Your task to perform on an android device: install app "WhatsApp Messenger" Image 0: 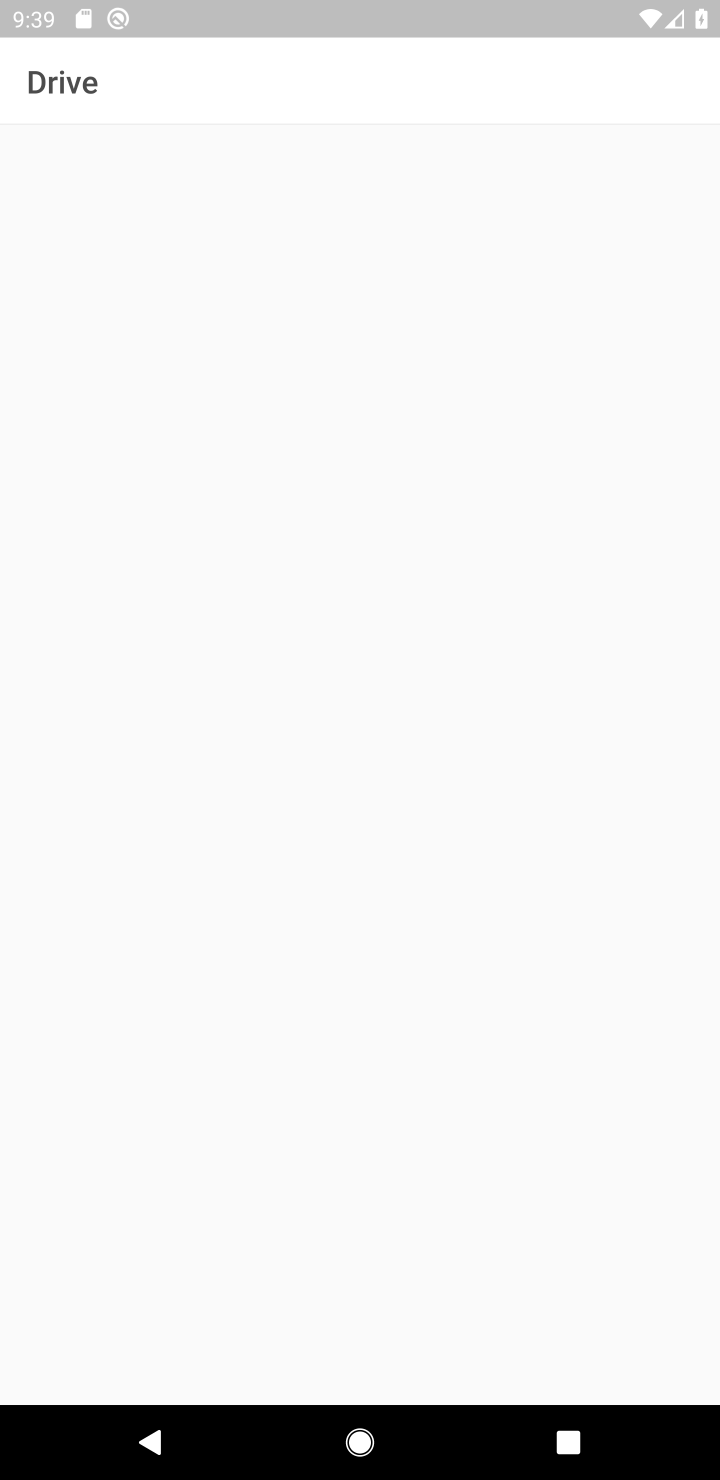
Step 0: press home button
Your task to perform on an android device: install app "WhatsApp Messenger" Image 1: 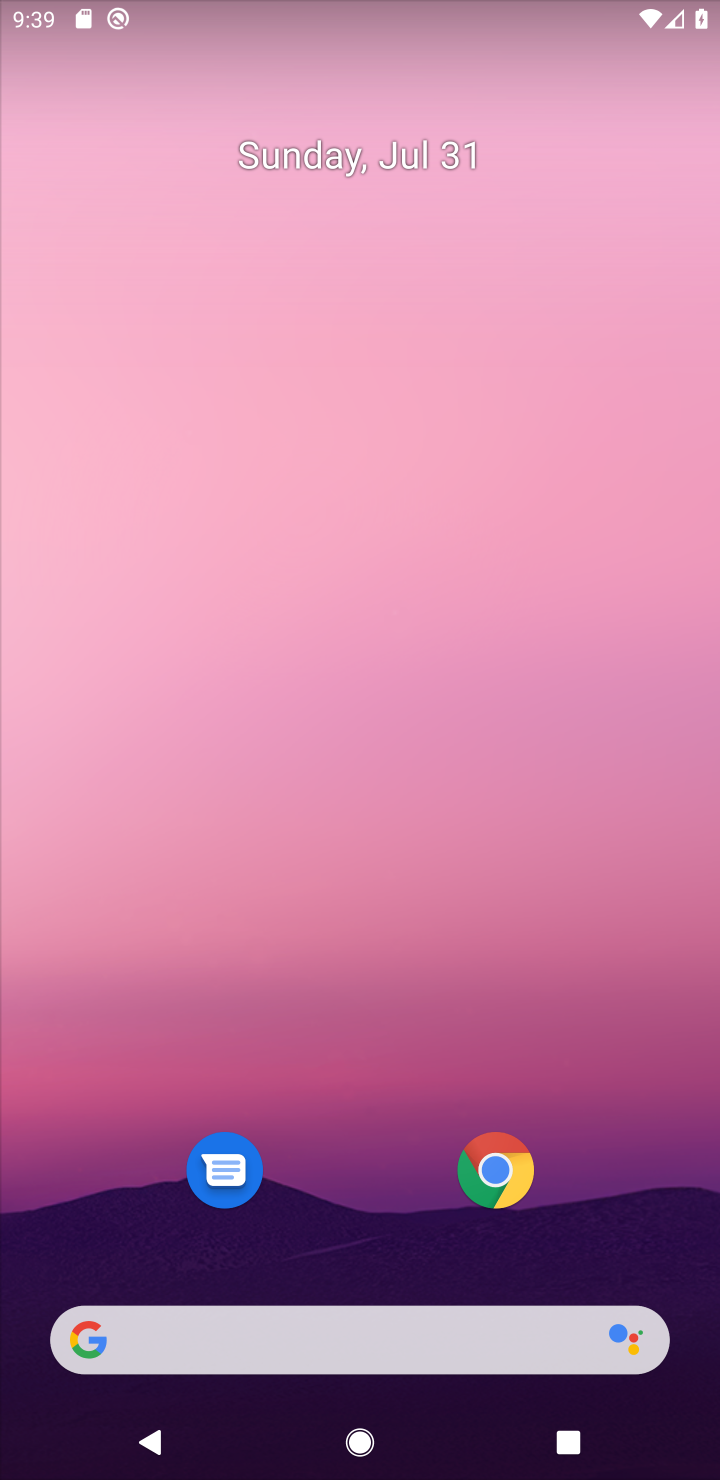
Step 1: drag from (670, 1124) to (406, 54)
Your task to perform on an android device: install app "WhatsApp Messenger" Image 2: 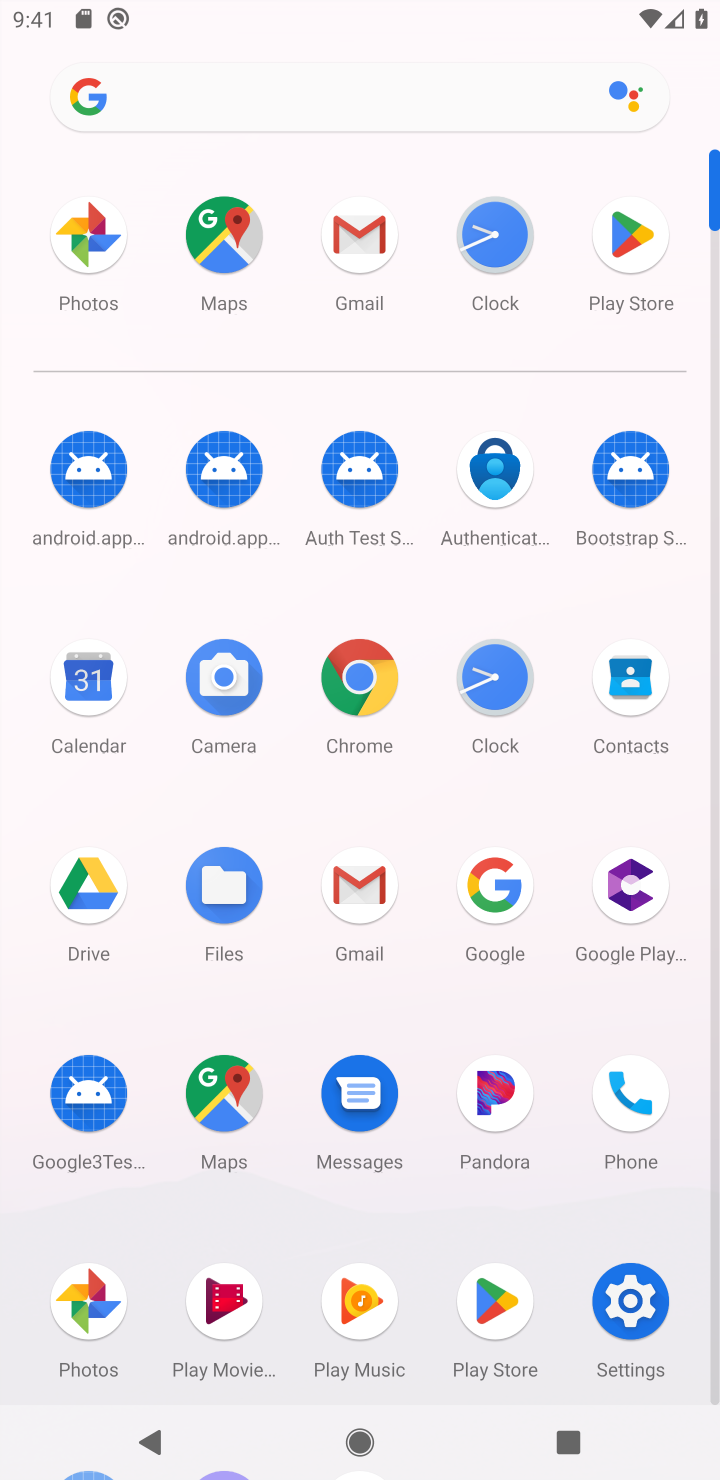
Step 2: click (612, 250)
Your task to perform on an android device: install app "WhatsApp Messenger" Image 3: 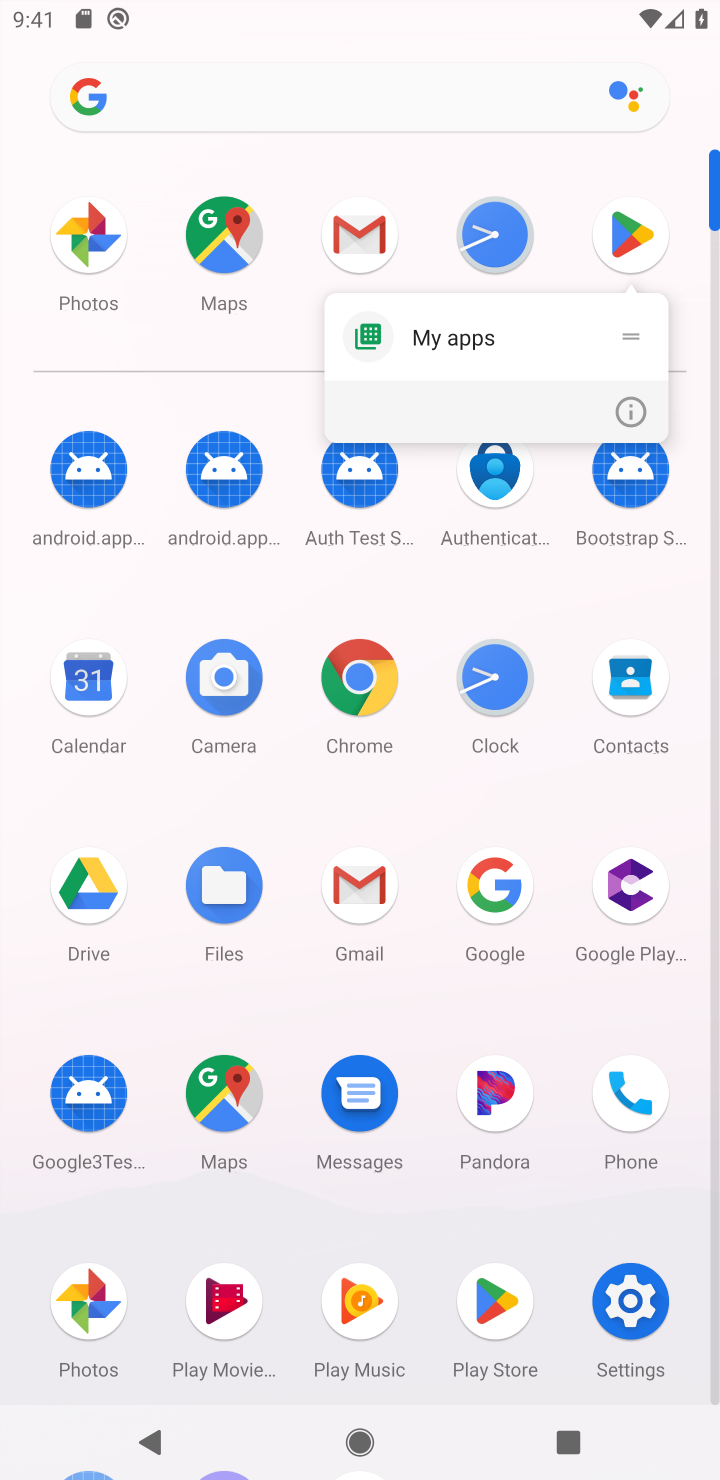
Step 3: click (610, 248)
Your task to perform on an android device: install app "WhatsApp Messenger" Image 4: 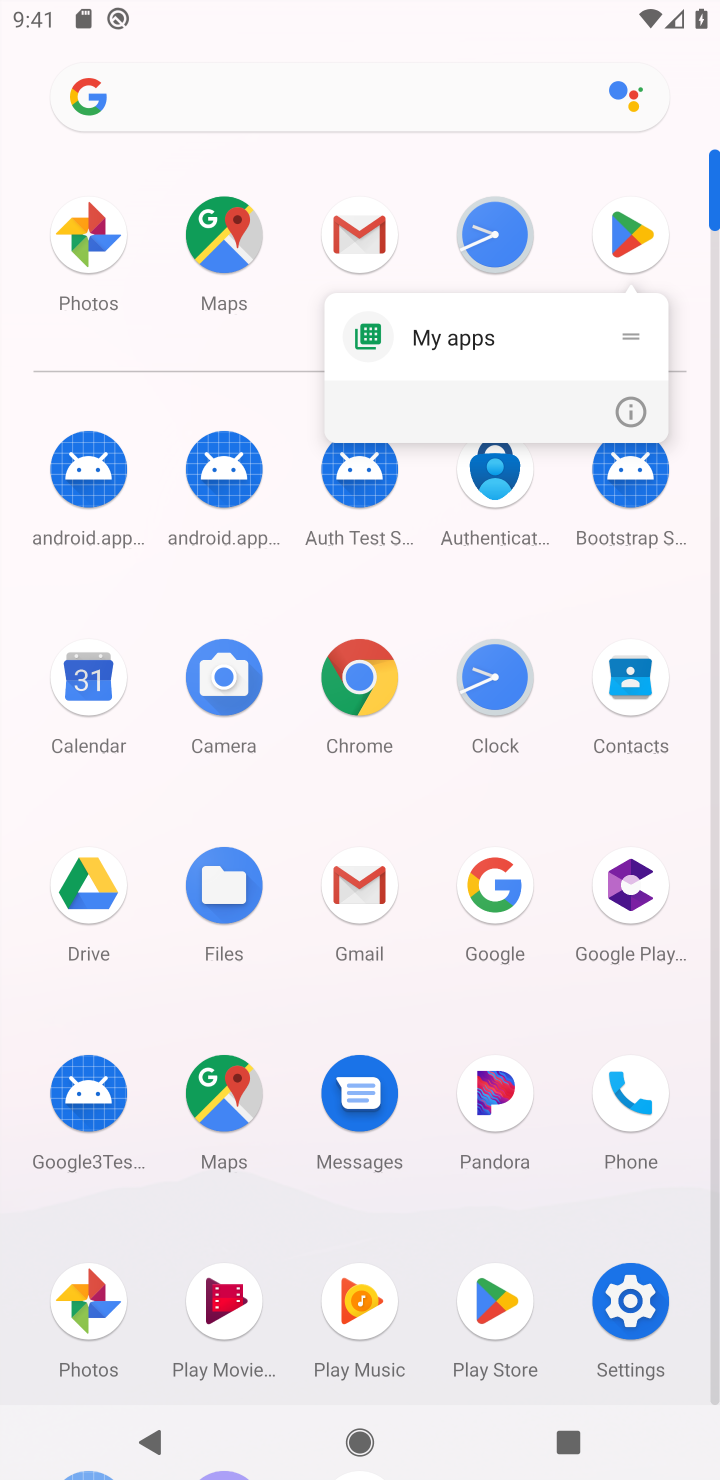
Step 4: click (610, 248)
Your task to perform on an android device: install app "WhatsApp Messenger" Image 5: 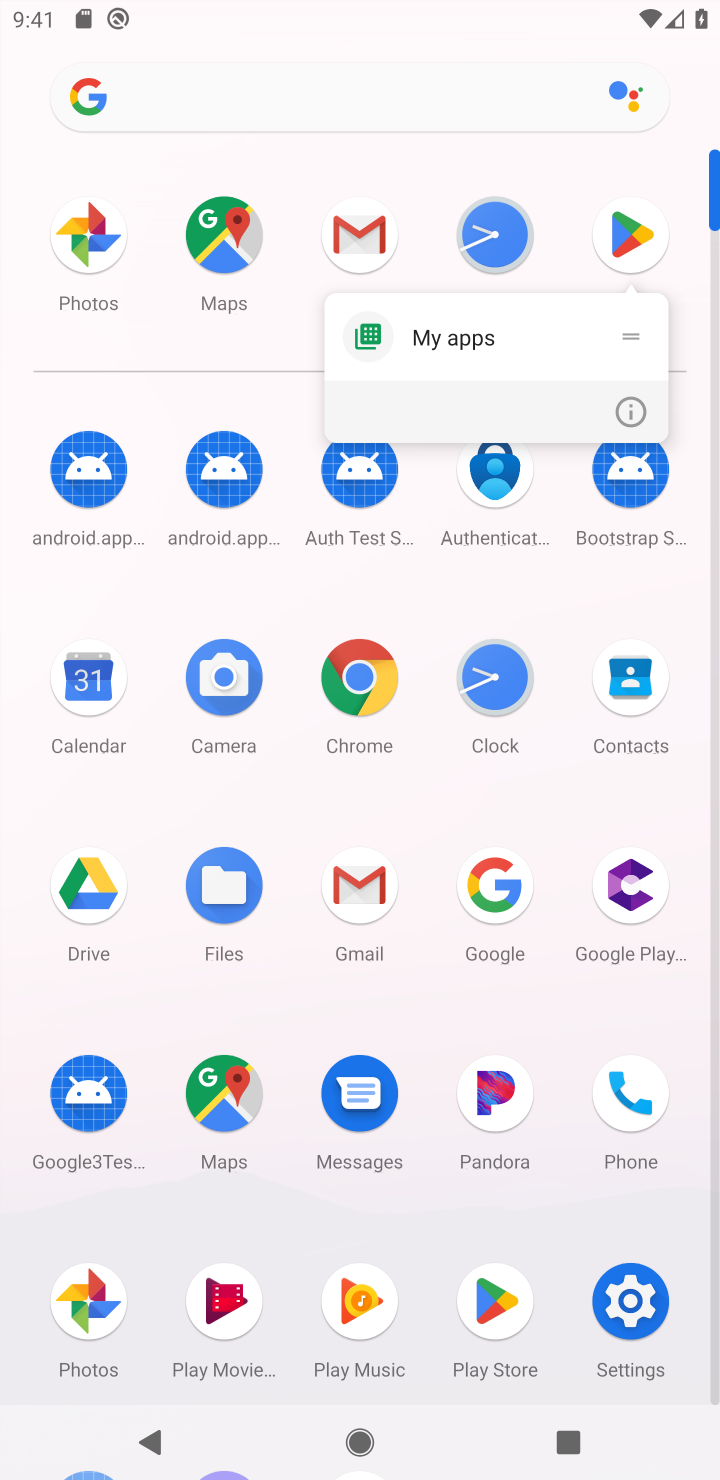
Step 5: click (610, 248)
Your task to perform on an android device: install app "WhatsApp Messenger" Image 6: 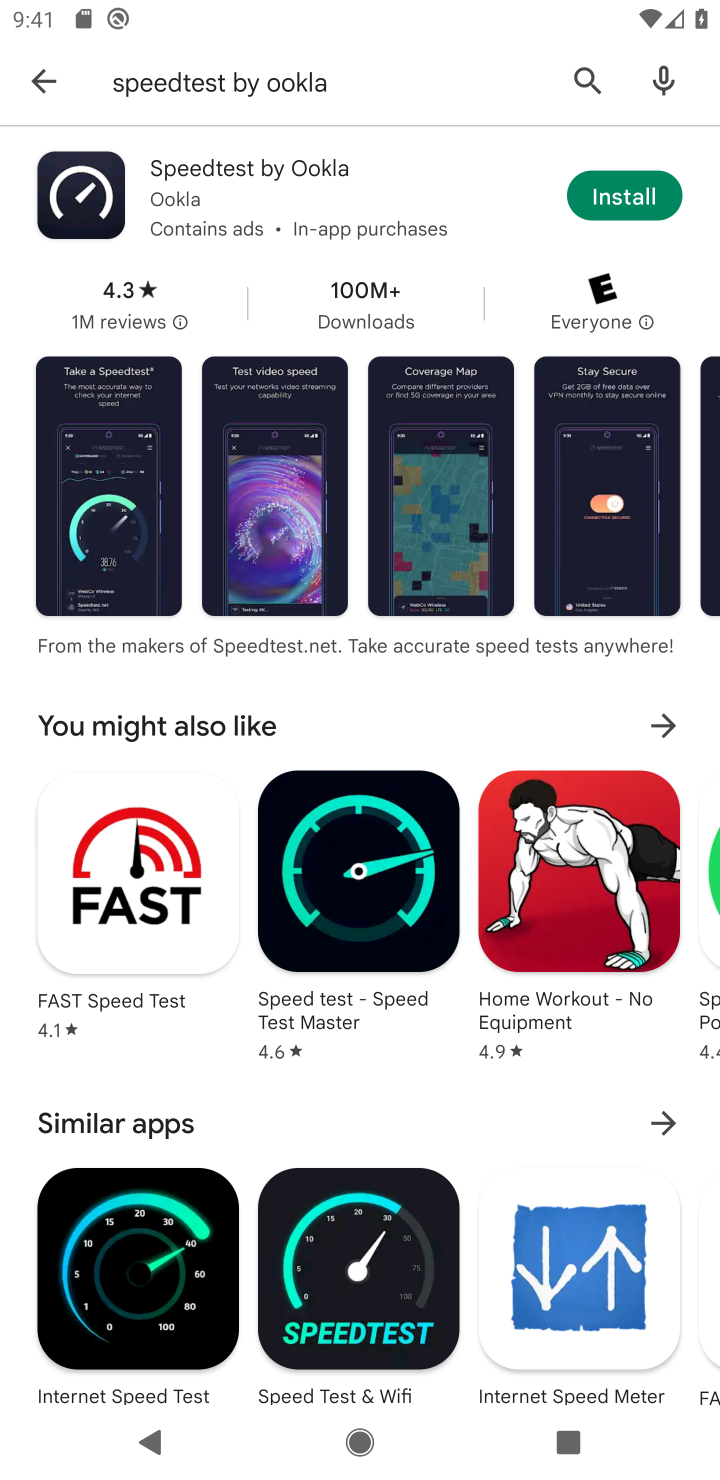
Step 6: press back button
Your task to perform on an android device: install app "WhatsApp Messenger" Image 7: 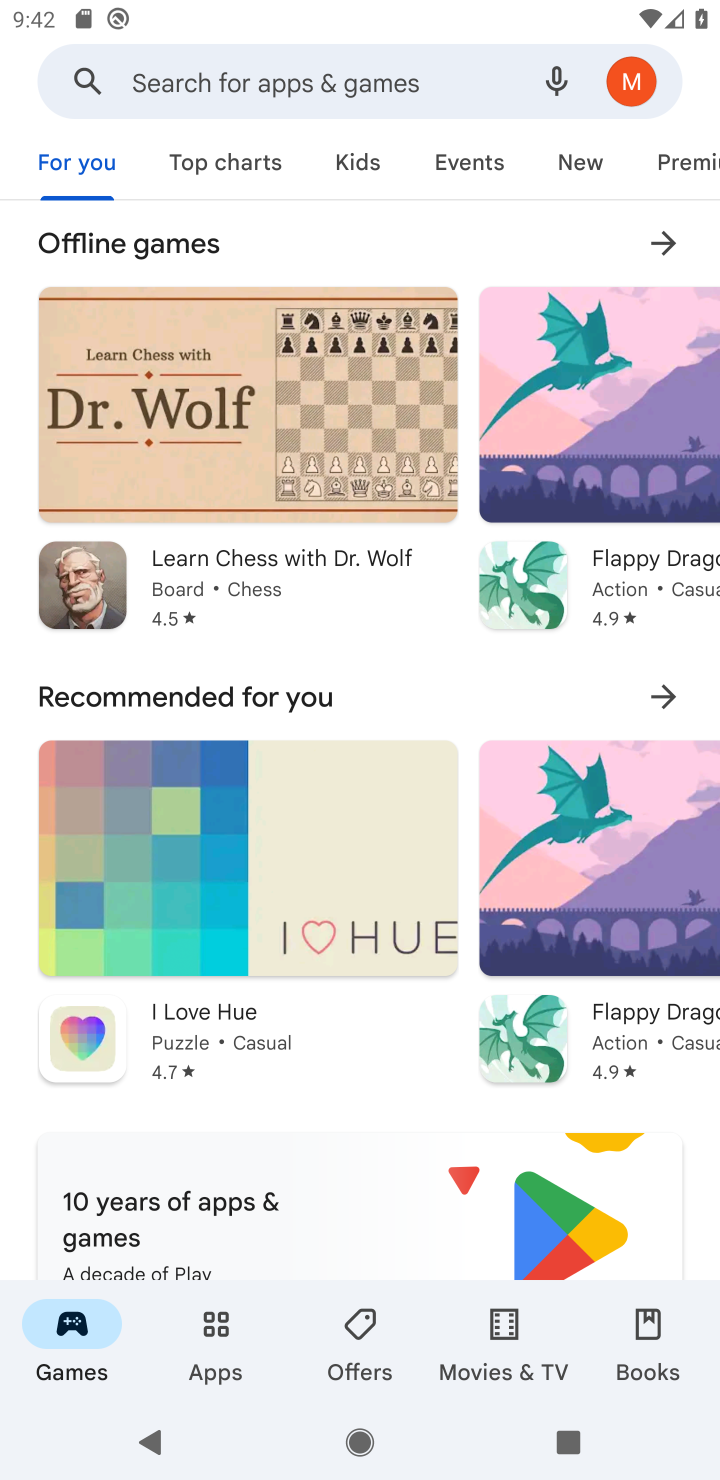
Step 7: click (210, 79)
Your task to perform on an android device: install app "WhatsApp Messenger" Image 8: 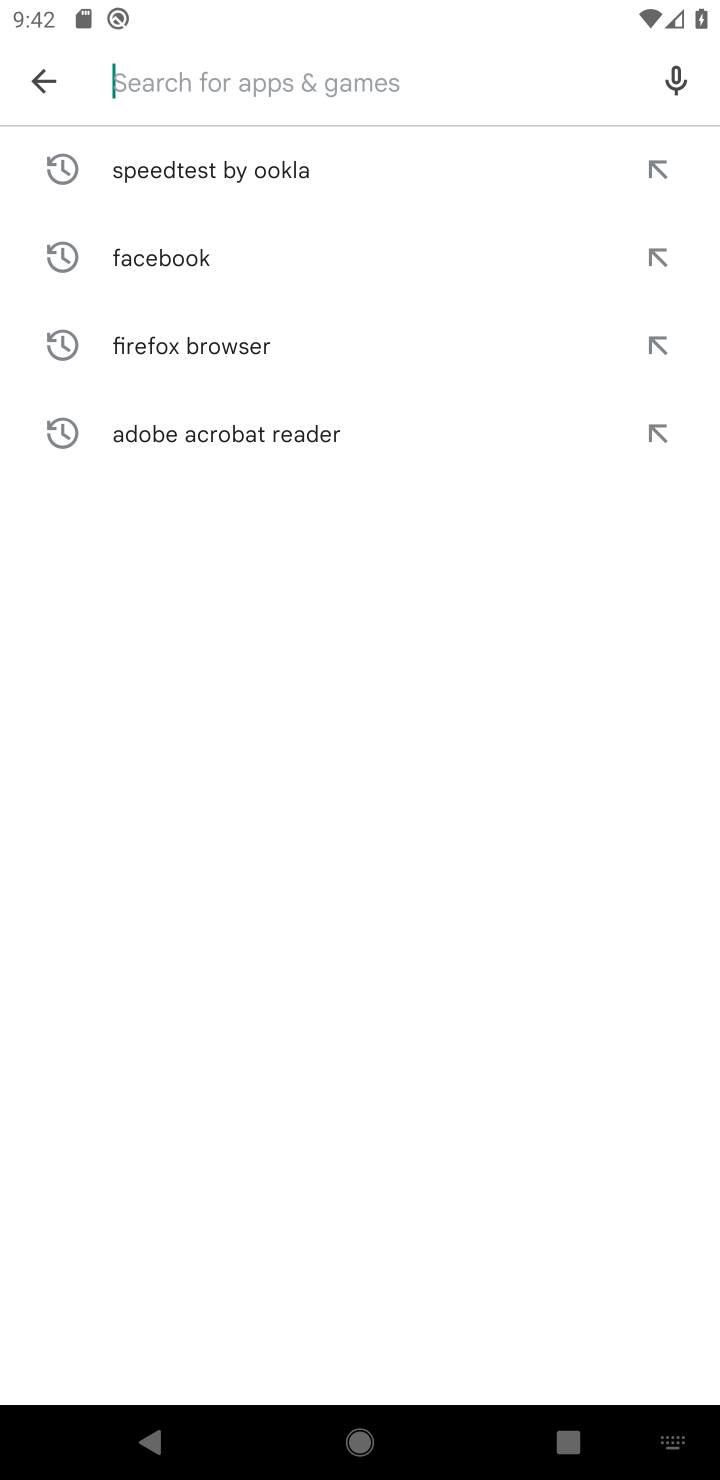
Step 8: type "WhatsApp Messenger"
Your task to perform on an android device: install app "WhatsApp Messenger" Image 9: 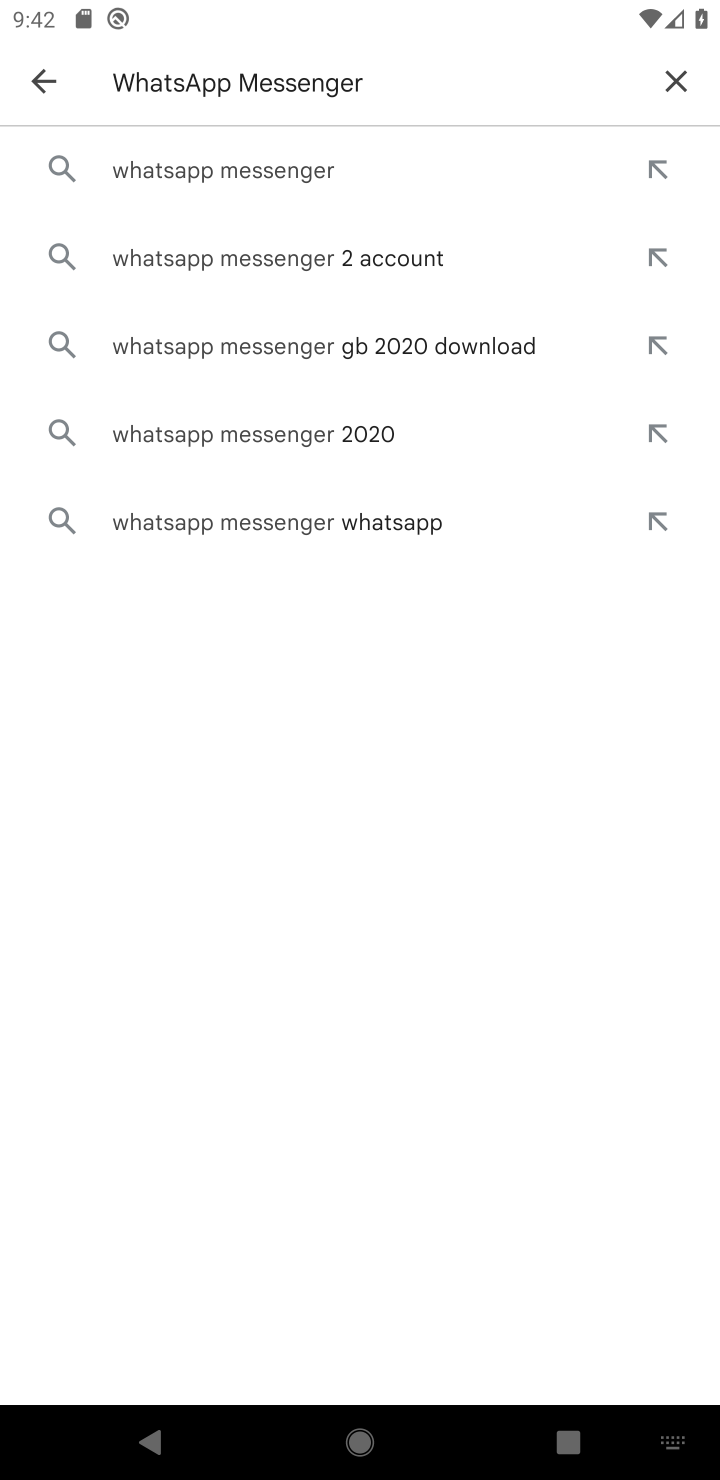
Step 9: click (165, 172)
Your task to perform on an android device: install app "WhatsApp Messenger" Image 10: 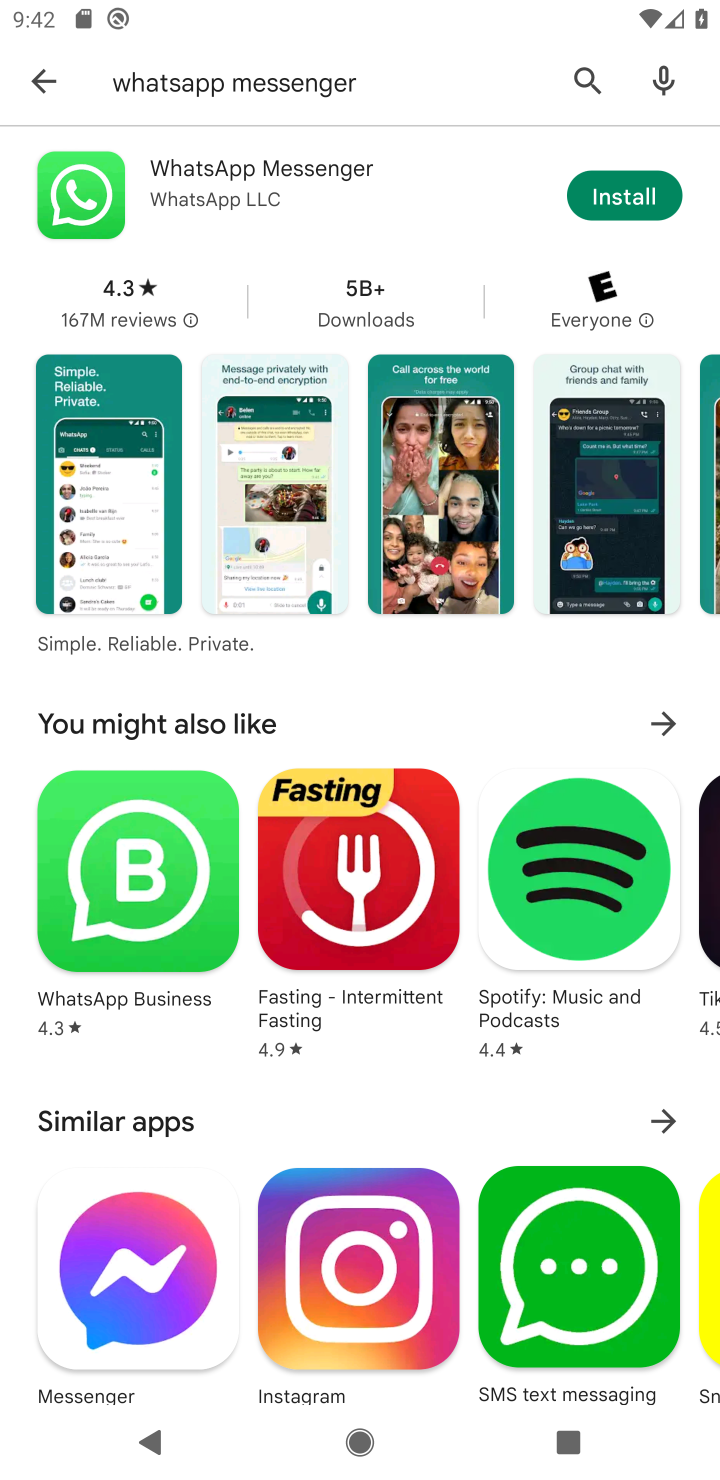
Step 10: click (627, 213)
Your task to perform on an android device: install app "WhatsApp Messenger" Image 11: 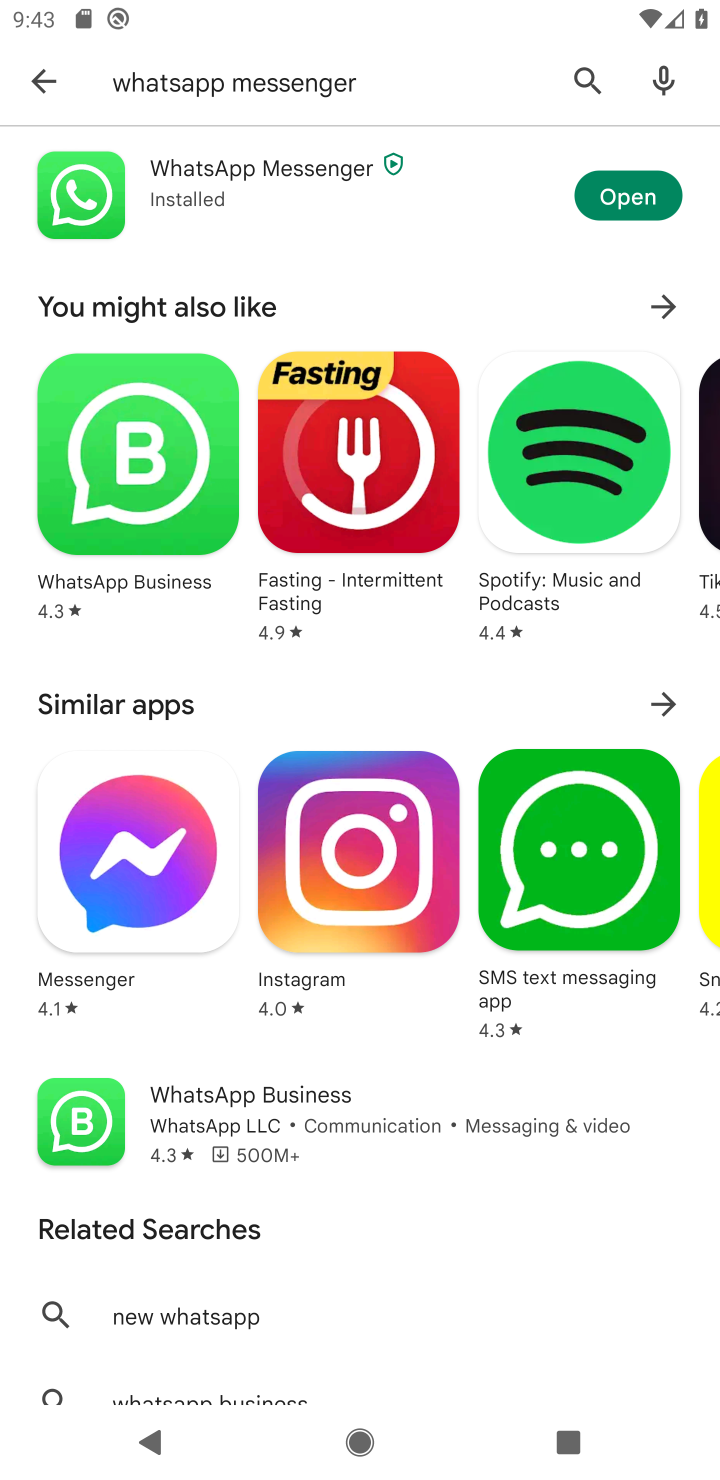
Step 11: task complete